Your task to perform on an android device: toggle javascript in the chrome app Image 0: 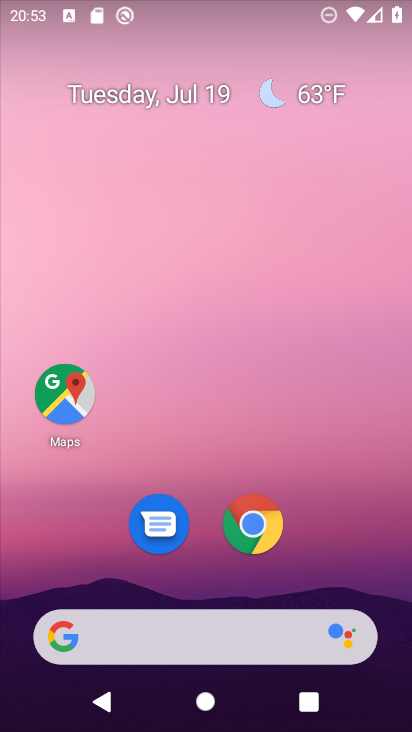
Step 0: click (258, 518)
Your task to perform on an android device: toggle javascript in the chrome app Image 1: 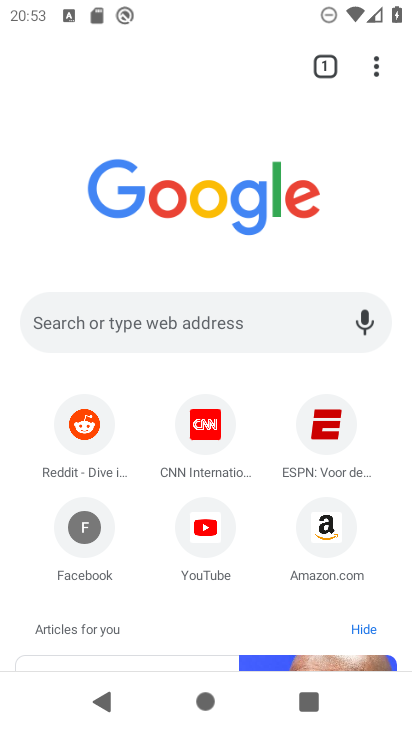
Step 1: click (375, 76)
Your task to perform on an android device: toggle javascript in the chrome app Image 2: 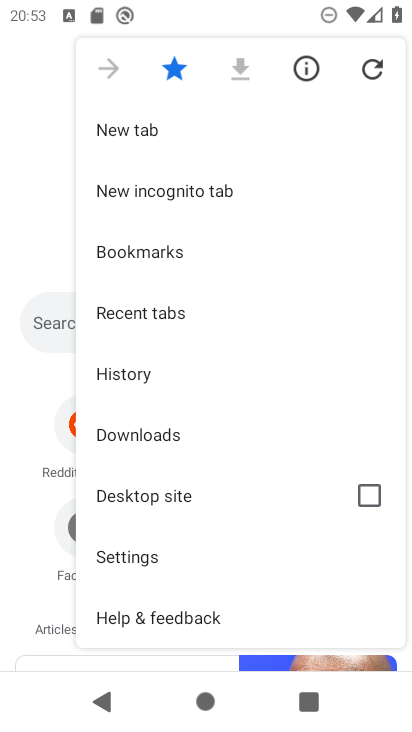
Step 2: click (155, 554)
Your task to perform on an android device: toggle javascript in the chrome app Image 3: 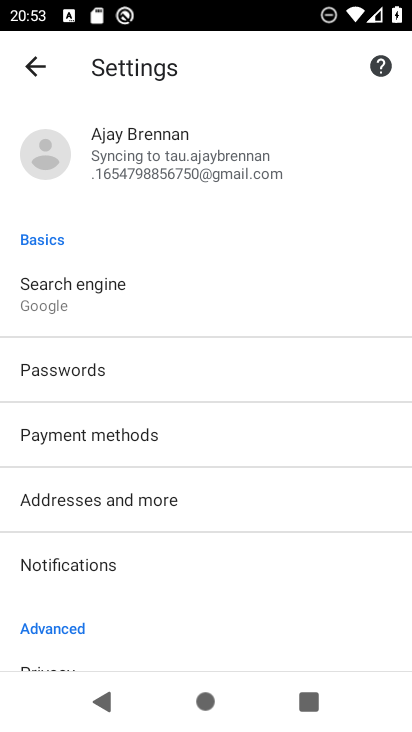
Step 3: drag from (155, 554) to (172, 326)
Your task to perform on an android device: toggle javascript in the chrome app Image 4: 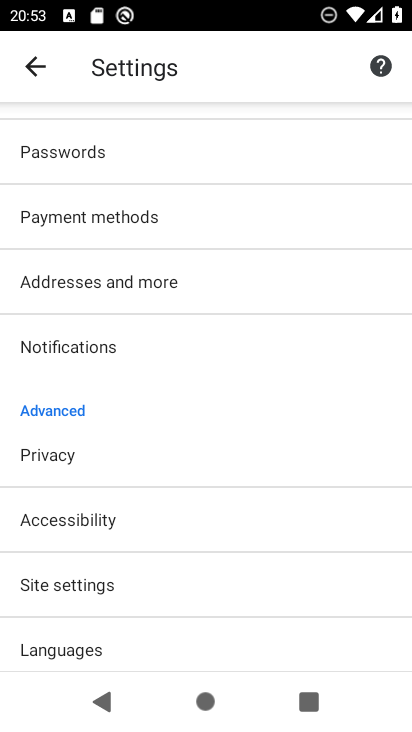
Step 4: click (169, 573)
Your task to perform on an android device: toggle javascript in the chrome app Image 5: 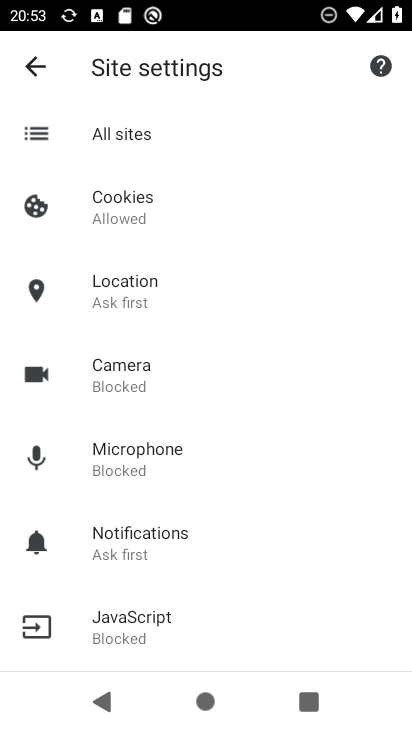
Step 5: click (154, 619)
Your task to perform on an android device: toggle javascript in the chrome app Image 6: 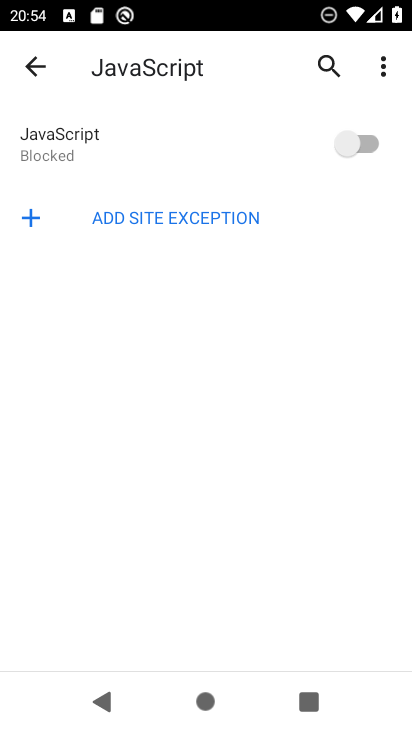
Step 6: click (363, 142)
Your task to perform on an android device: toggle javascript in the chrome app Image 7: 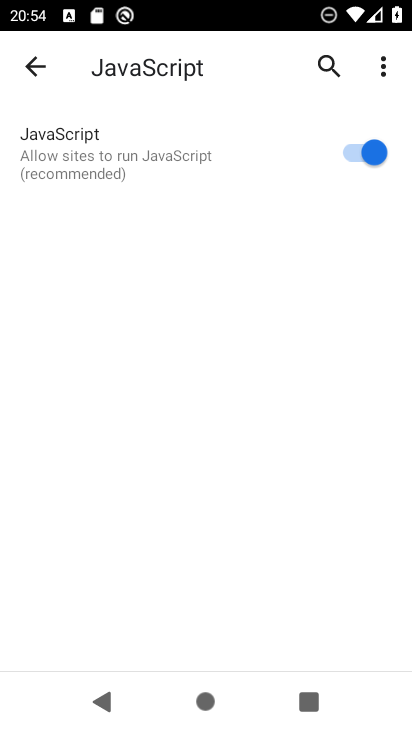
Step 7: task complete